Your task to perform on an android device: turn on javascript in the chrome app Image 0: 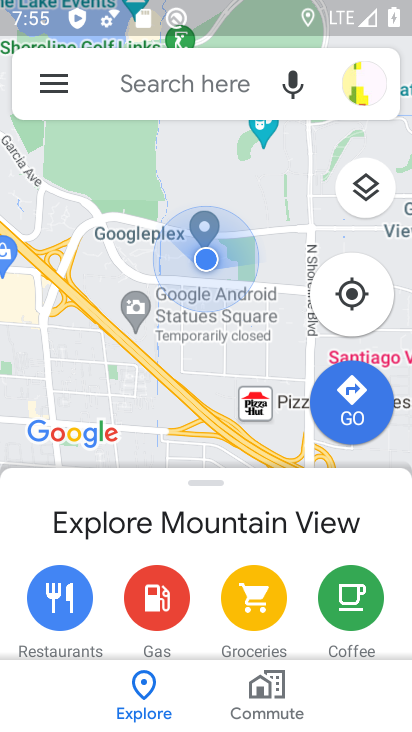
Step 0: press home button
Your task to perform on an android device: turn on javascript in the chrome app Image 1: 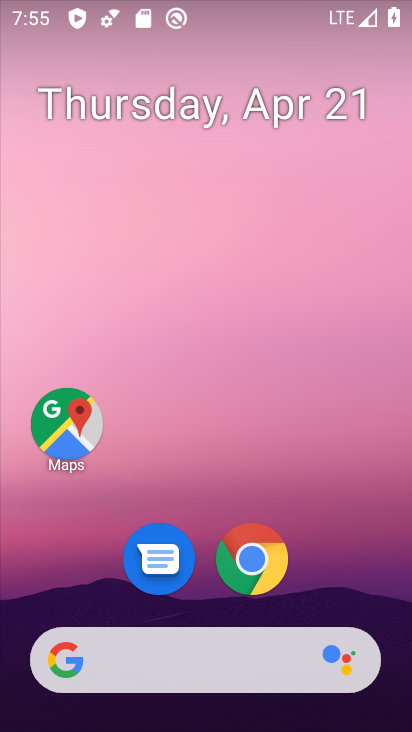
Step 1: drag from (331, 571) to (328, 186)
Your task to perform on an android device: turn on javascript in the chrome app Image 2: 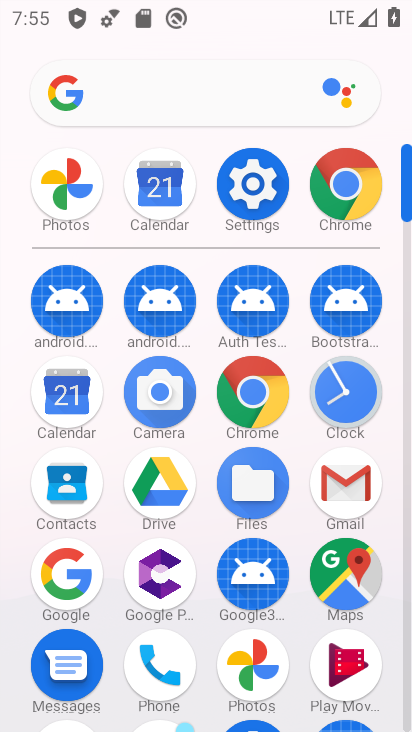
Step 2: click (270, 402)
Your task to perform on an android device: turn on javascript in the chrome app Image 3: 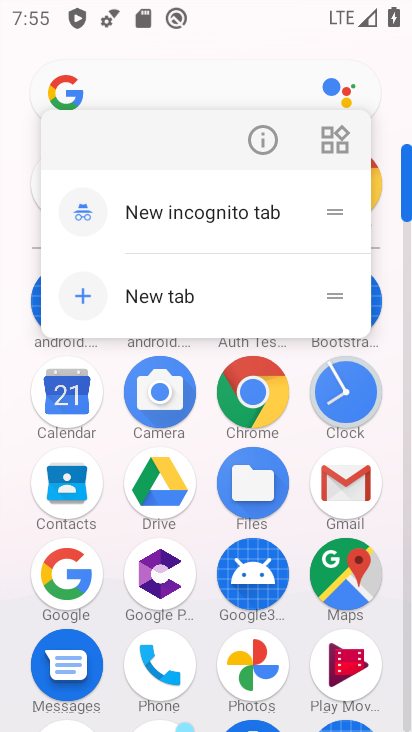
Step 3: click (278, 410)
Your task to perform on an android device: turn on javascript in the chrome app Image 4: 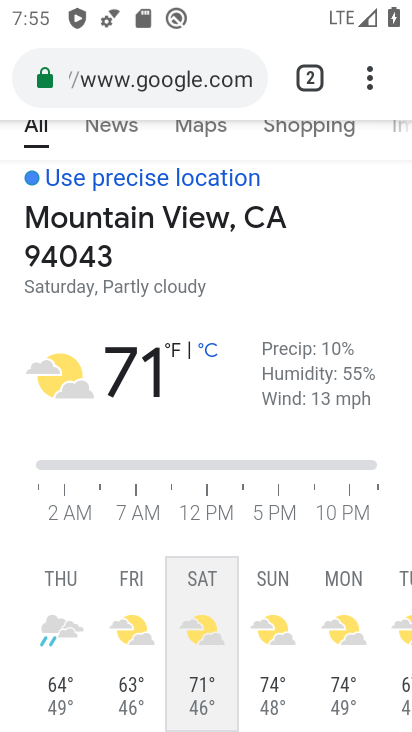
Step 4: drag from (366, 81) to (206, 621)
Your task to perform on an android device: turn on javascript in the chrome app Image 5: 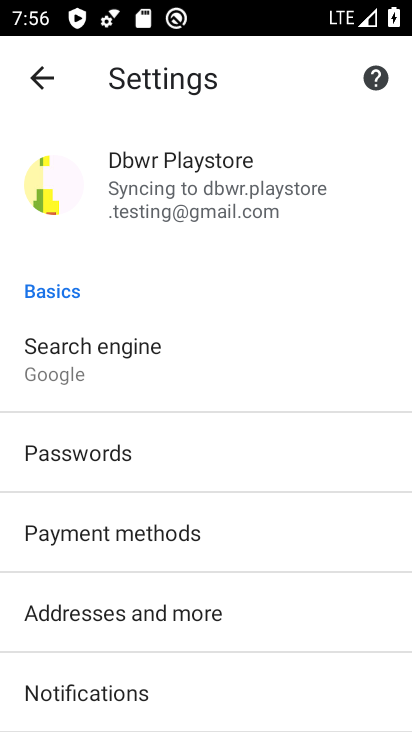
Step 5: drag from (282, 664) to (329, 340)
Your task to perform on an android device: turn on javascript in the chrome app Image 6: 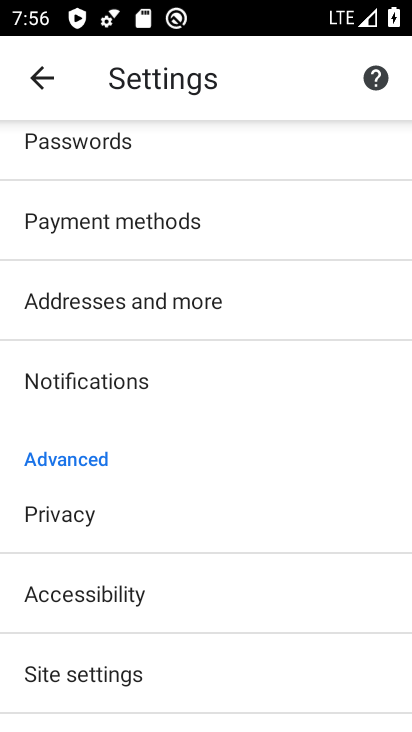
Step 6: click (267, 685)
Your task to perform on an android device: turn on javascript in the chrome app Image 7: 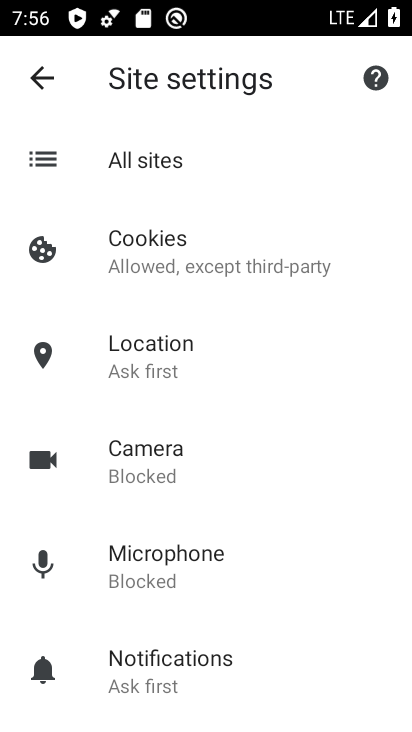
Step 7: drag from (275, 687) to (351, 320)
Your task to perform on an android device: turn on javascript in the chrome app Image 8: 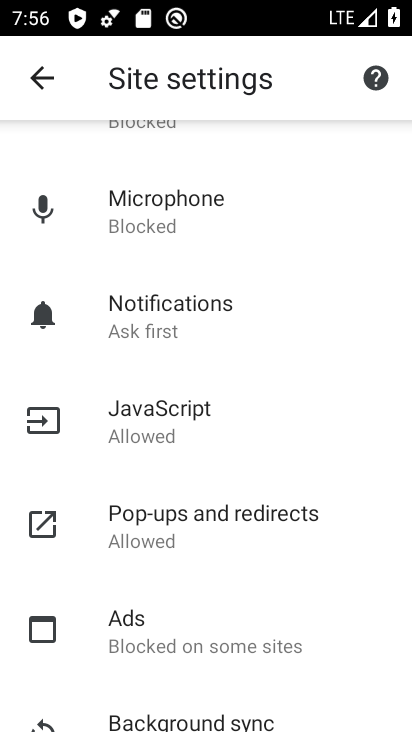
Step 8: click (248, 420)
Your task to perform on an android device: turn on javascript in the chrome app Image 9: 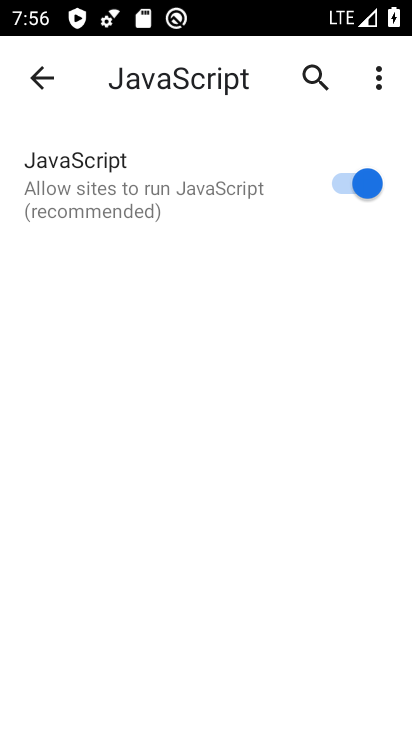
Step 9: task complete